Your task to perform on an android device: Clear all items from cart on target. Search for razer naga on target, select the first entry, add it to the cart, then select checkout. Image 0: 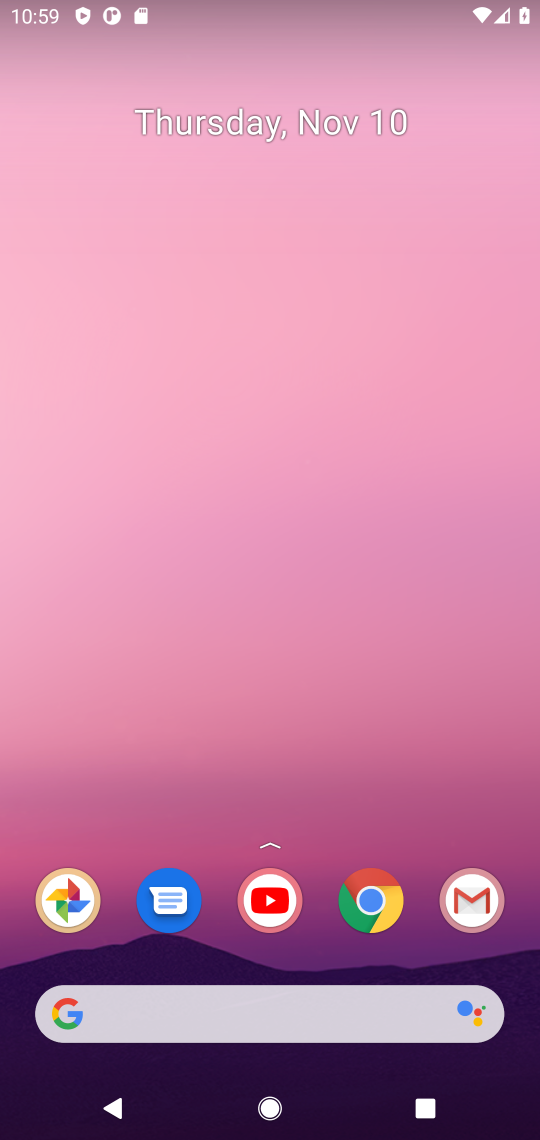
Step 0: click (379, 902)
Your task to perform on an android device: Clear all items from cart on target. Search for razer naga on target, select the first entry, add it to the cart, then select checkout. Image 1: 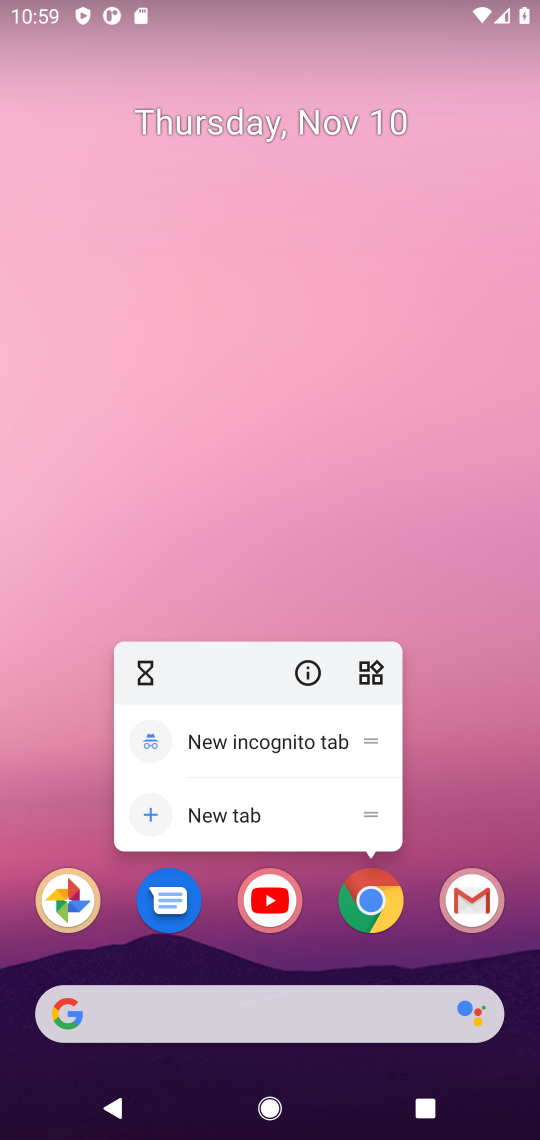
Step 1: click (354, 877)
Your task to perform on an android device: Clear all items from cart on target. Search for razer naga on target, select the first entry, add it to the cart, then select checkout. Image 2: 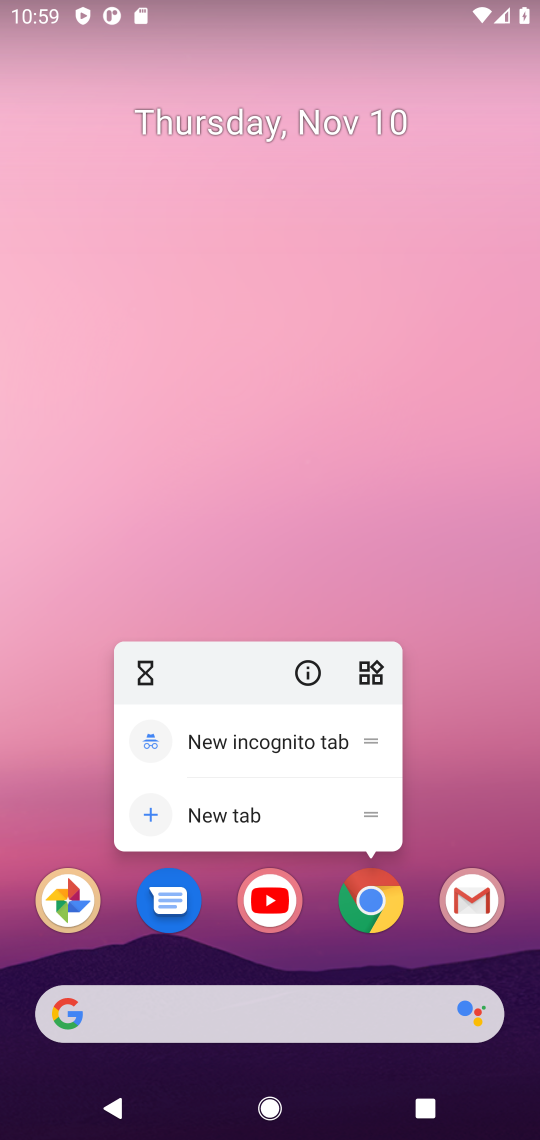
Step 2: click (364, 899)
Your task to perform on an android device: Clear all items from cart on target. Search for razer naga on target, select the first entry, add it to the cart, then select checkout. Image 3: 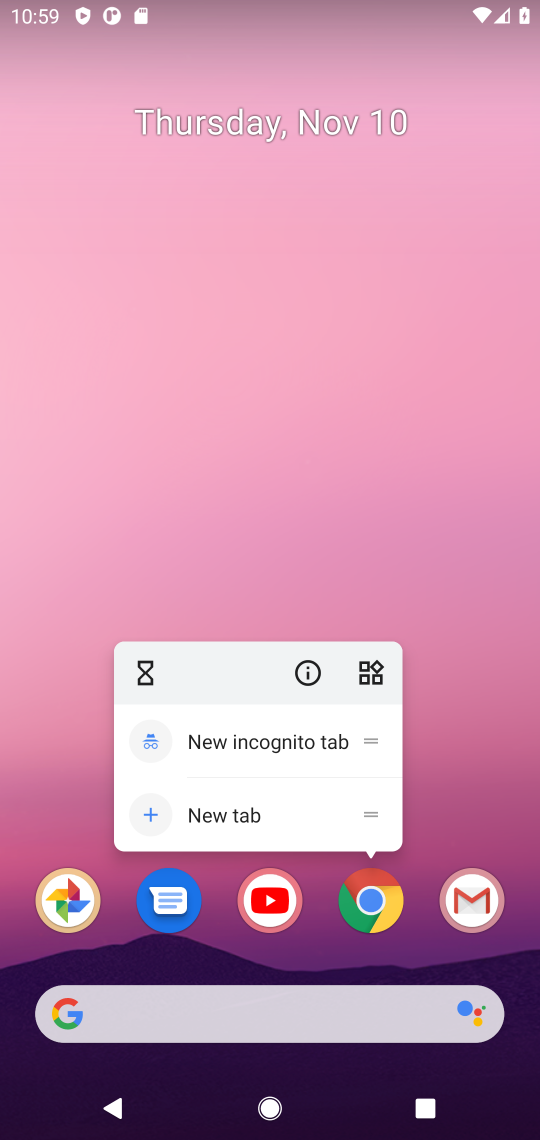
Step 3: click (376, 892)
Your task to perform on an android device: Clear all items from cart on target. Search for razer naga on target, select the first entry, add it to the cart, then select checkout. Image 4: 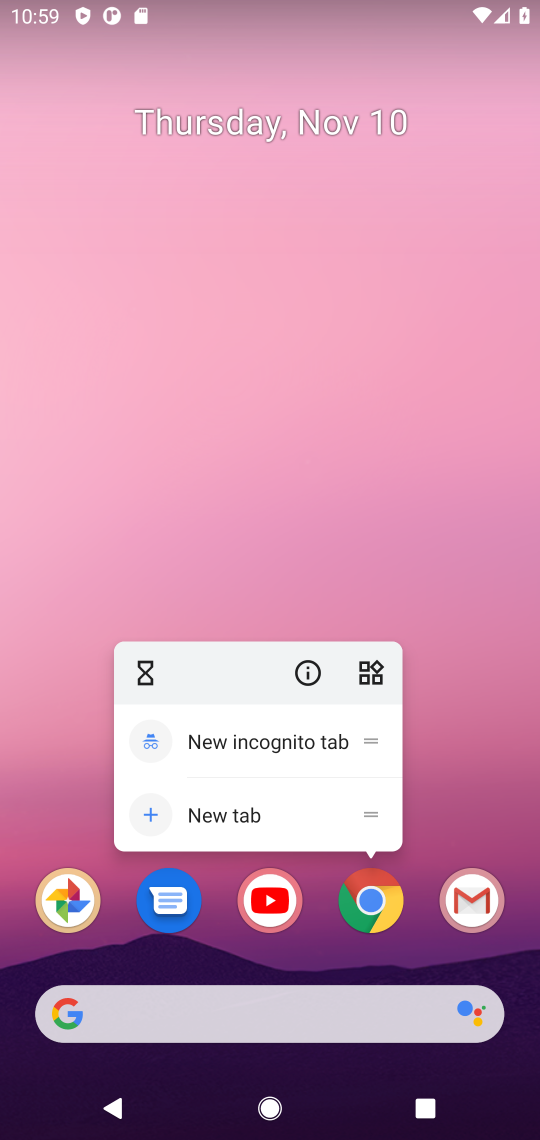
Step 4: click (369, 899)
Your task to perform on an android device: Clear all items from cart on target. Search for razer naga on target, select the first entry, add it to the cart, then select checkout. Image 5: 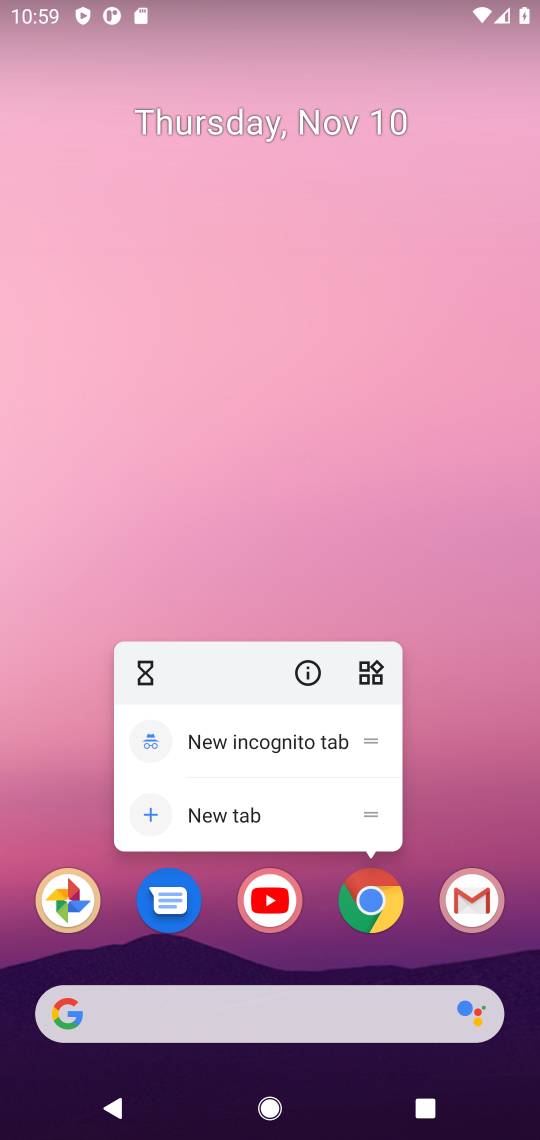
Step 5: click (384, 893)
Your task to perform on an android device: Clear all items from cart on target. Search for razer naga on target, select the first entry, add it to the cart, then select checkout. Image 6: 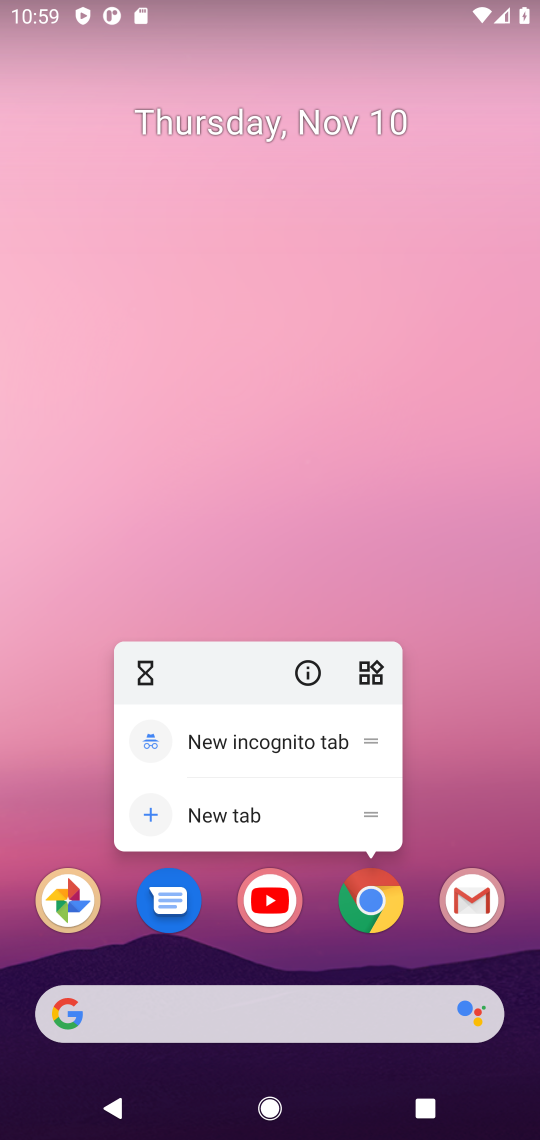
Step 6: click (368, 913)
Your task to perform on an android device: Clear all items from cart on target. Search for razer naga on target, select the first entry, add it to the cart, then select checkout. Image 7: 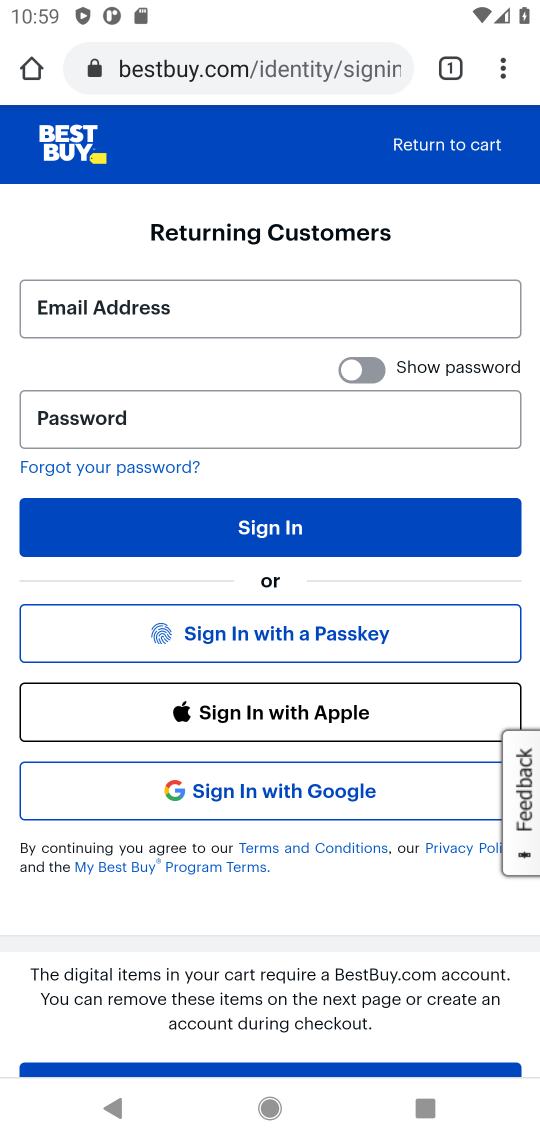
Step 7: click (297, 69)
Your task to perform on an android device: Clear all items from cart on target. Search for razer naga on target, select the first entry, add it to the cart, then select checkout. Image 8: 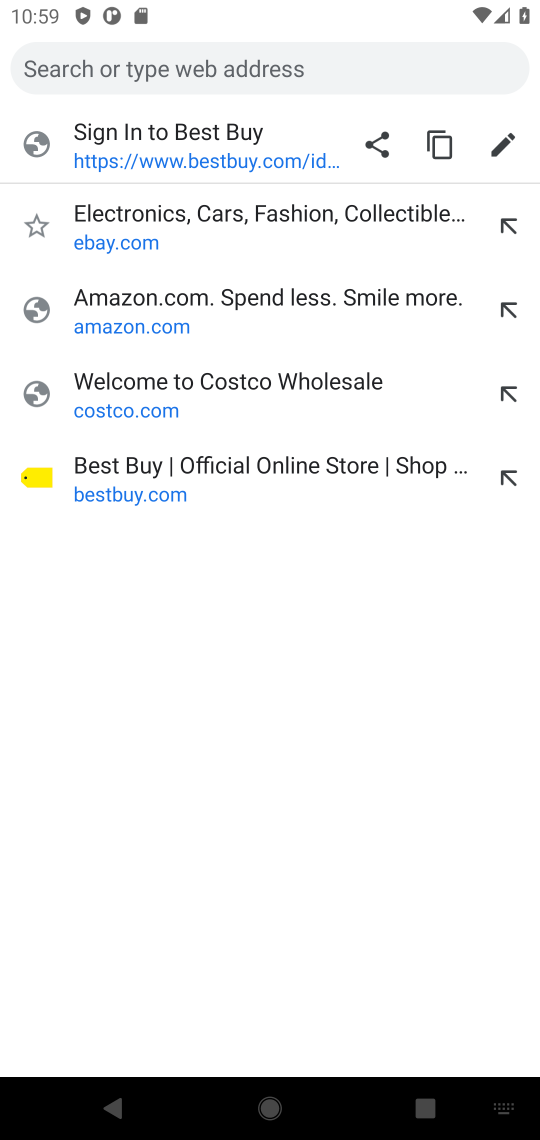
Step 8: type "target"
Your task to perform on an android device: Clear all items from cart on target. Search for razer naga on target, select the first entry, add it to the cart, then select checkout. Image 9: 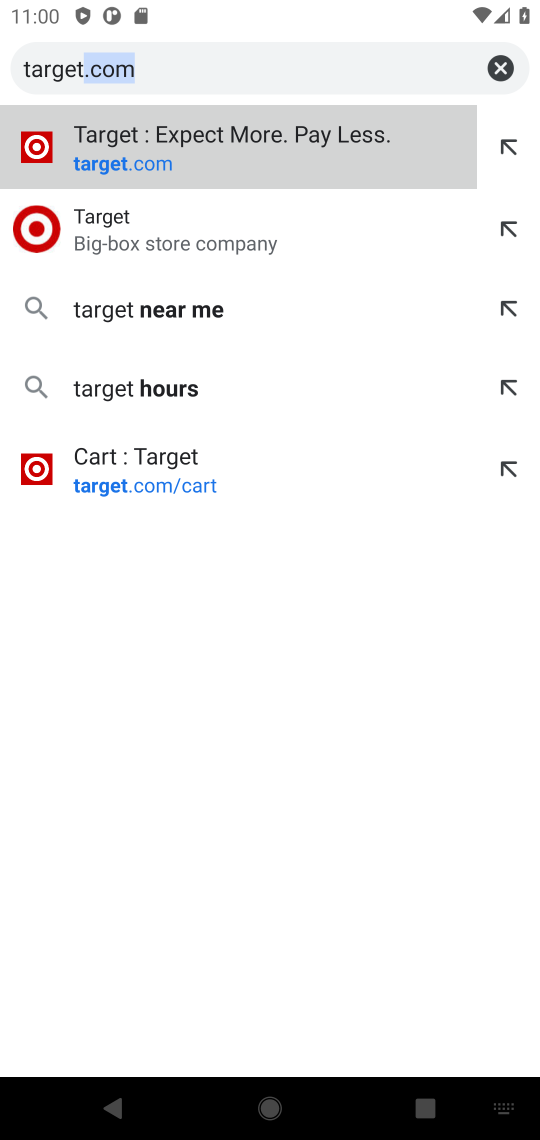
Step 9: press enter
Your task to perform on an android device: Clear all items from cart on target. Search for razer naga on target, select the first entry, add it to the cart, then select checkout. Image 10: 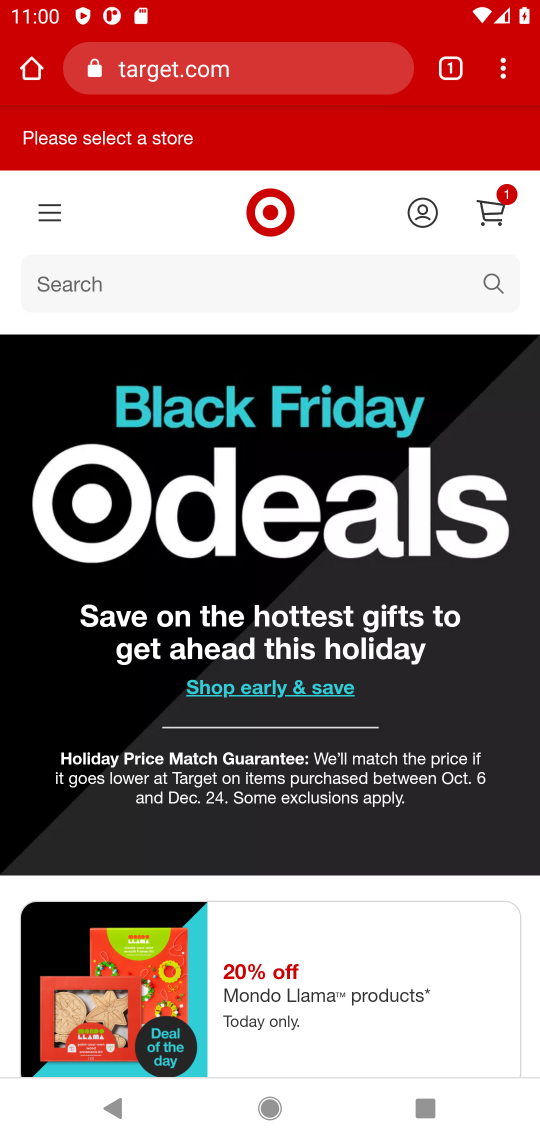
Step 10: click (118, 279)
Your task to perform on an android device: Clear all items from cart on target. Search for razer naga on target, select the first entry, add it to the cart, then select checkout. Image 11: 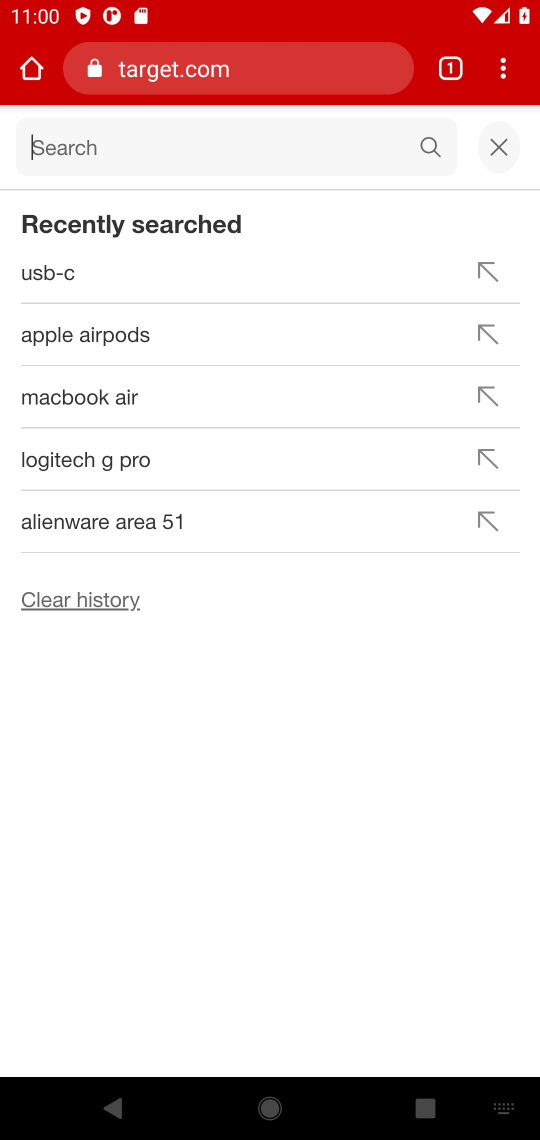
Step 11: type "razer naga "
Your task to perform on an android device: Clear all items from cart on target. Search for razer naga on target, select the first entry, add it to the cart, then select checkout. Image 12: 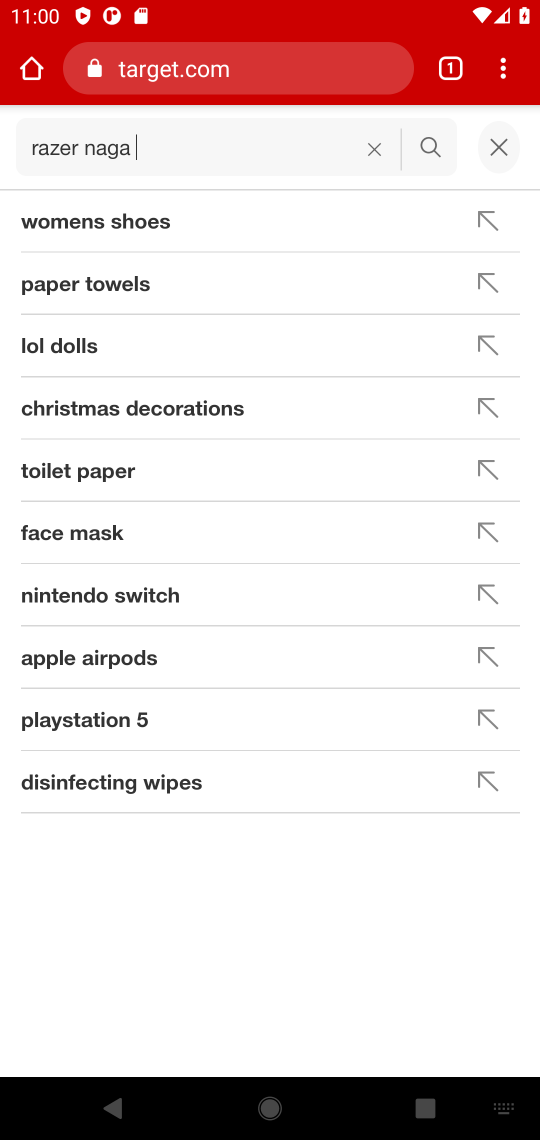
Step 12: press enter
Your task to perform on an android device: Clear all items from cart on target. Search for razer naga on target, select the first entry, add it to the cart, then select checkout. Image 13: 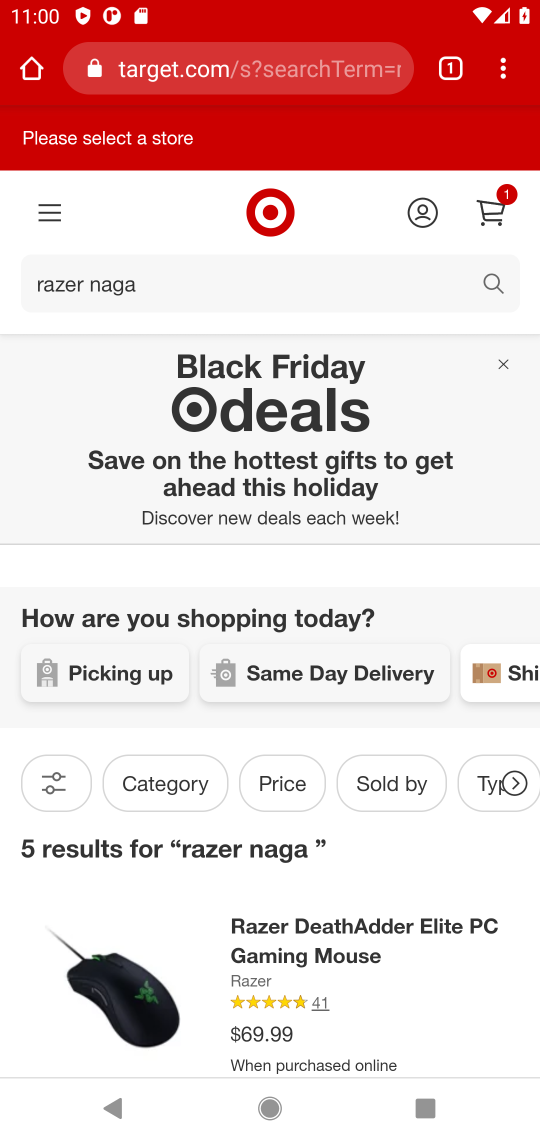
Step 13: task complete